Your task to perform on an android device: turn on sleep mode Image 0: 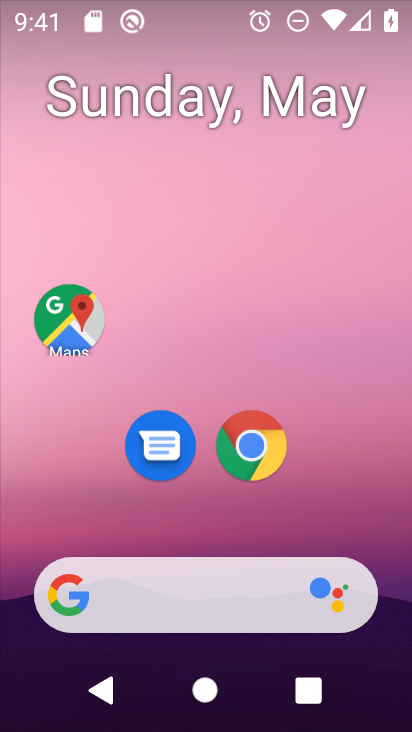
Step 0: drag from (196, 519) to (235, 229)
Your task to perform on an android device: turn on sleep mode Image 1: 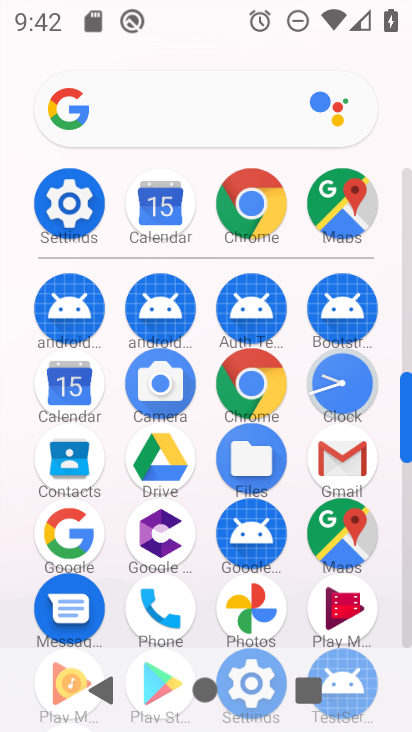
Step 1: click (84, 211)
Your task to perform on an android device: turn on sleep mode Image 2: 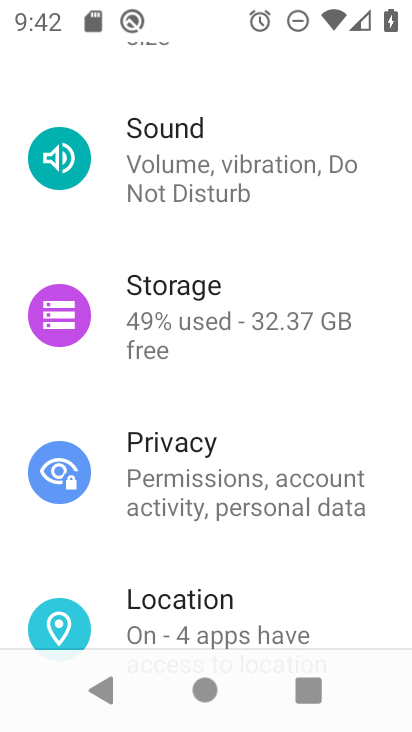
Step 2: drag from (260, 205) to (225, 550)
Your task to perform on an android device: turn on sleep mode Image 3: 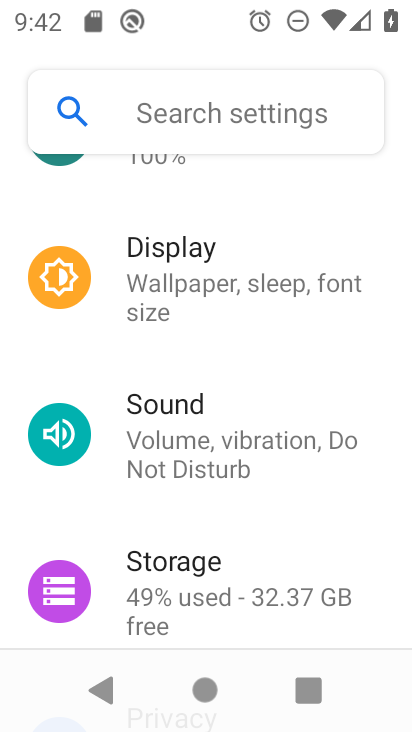
Step 3: click (247, 287)
Your task to perform on an android device: turn on sleep mode Image 4: 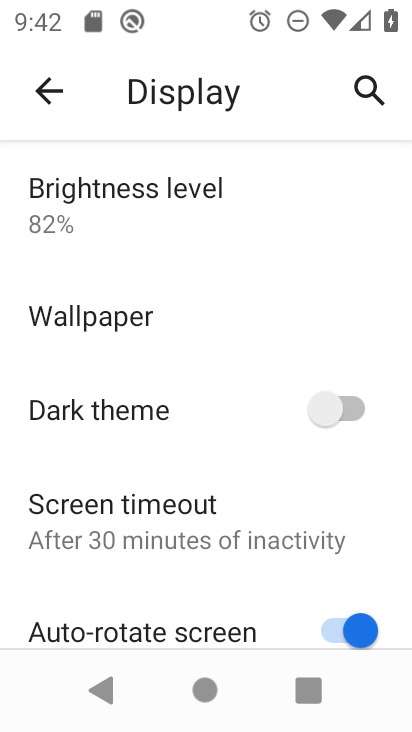
Step 4: task complete